Your task to perform on an android device: What's the weather going to be tomorrow? Image 0: 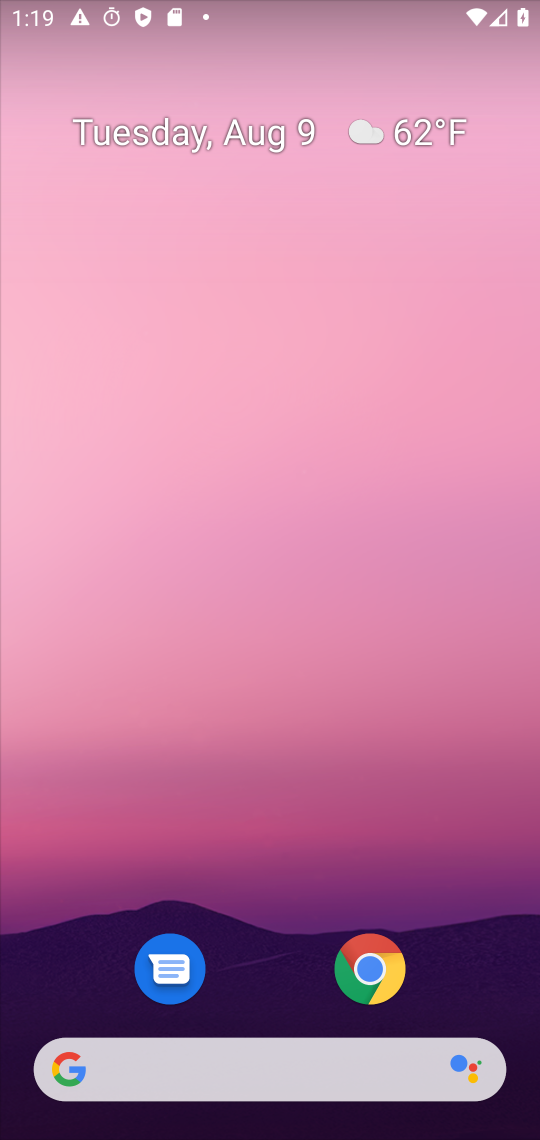
Step 0: click (221, 1076)
Your task to perform on an android device: What's the weather going to be tomorrow? Image 1: 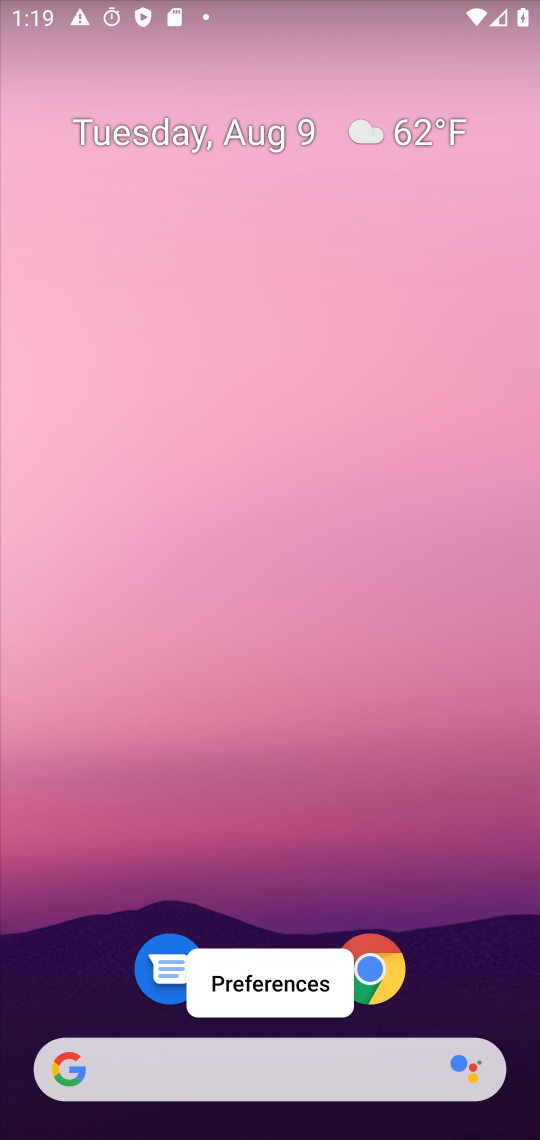
Step 1: click (222, 1079)
Your task to perform on an android device: What's the weather going to be tomorrow? Image 2: 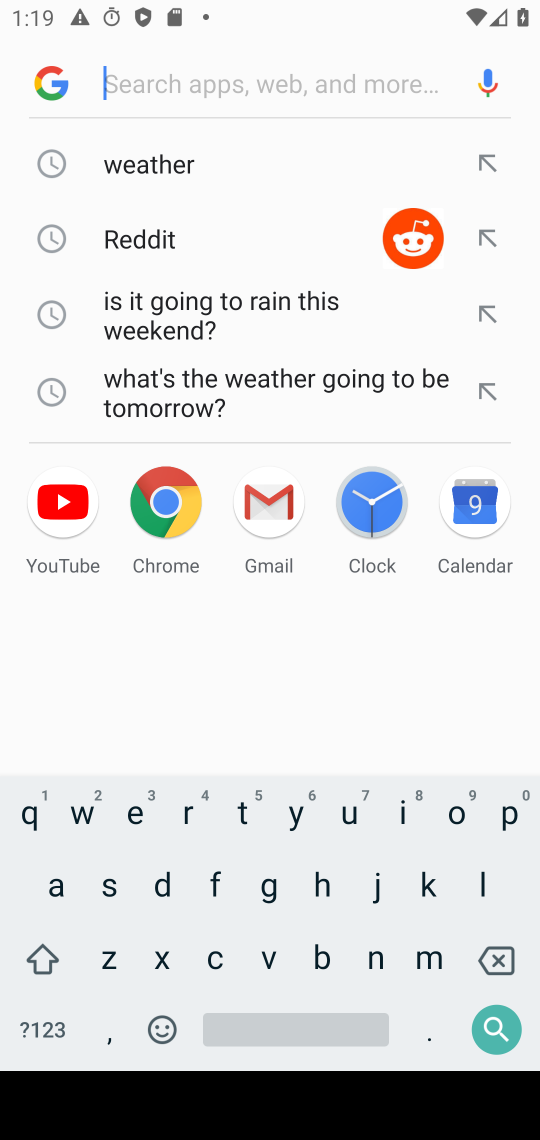
Step 2: click (198, 183)
Your task to perform on an android device: What's the weather going to be tomorrow? Image 3: 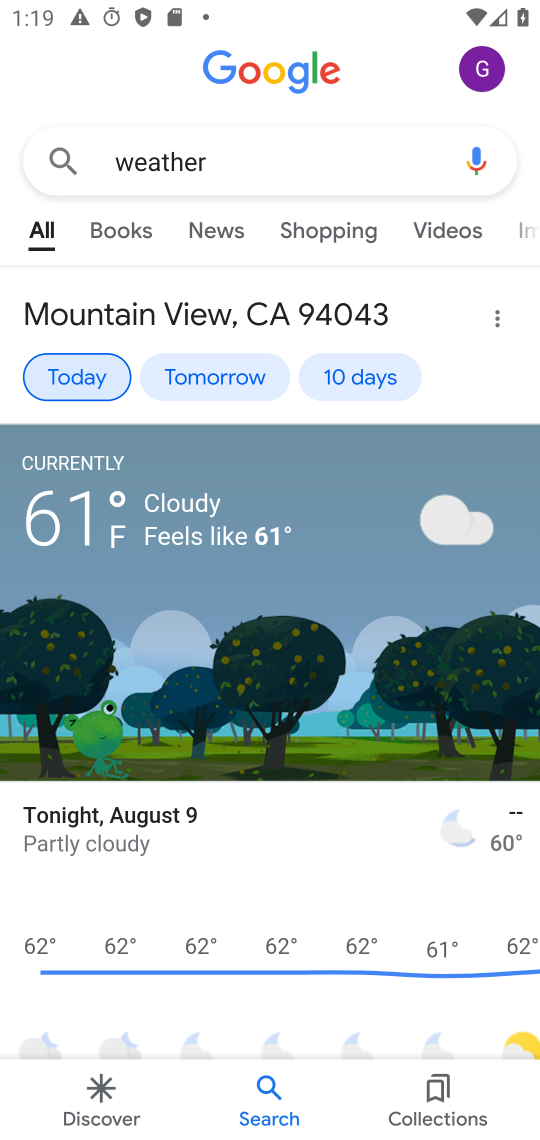
Step 3: click (216, 379)
Your task to perform on an android device: What's the weather going to be tomorrow? Image 4: 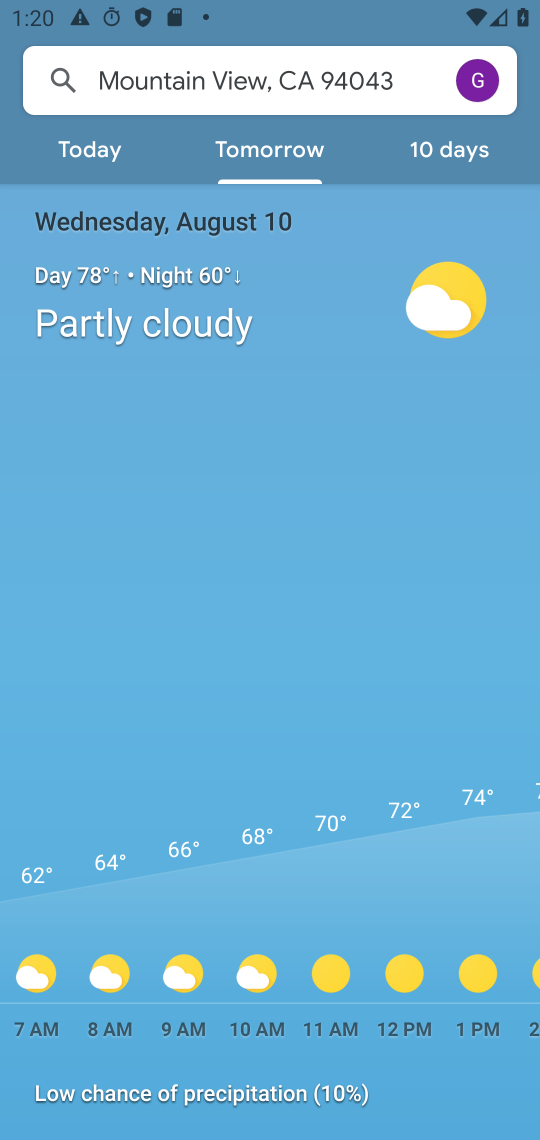
Step 4: task complete